Your task to perform on an android device: turn on airplane mode Image 0: 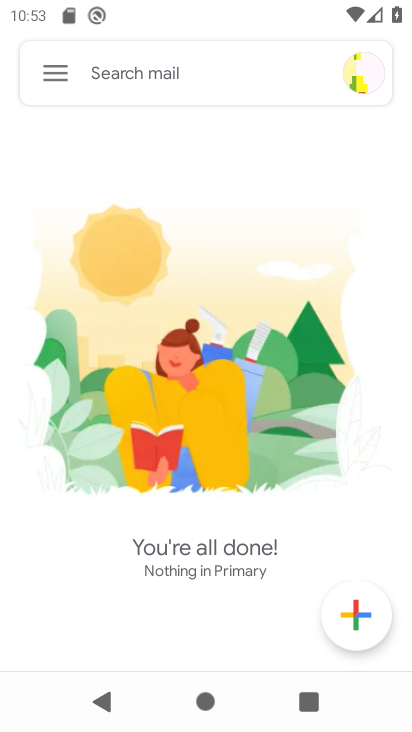
Step 0: press home button
Your task to perform on an android device: turn on airplane mode Image 1: 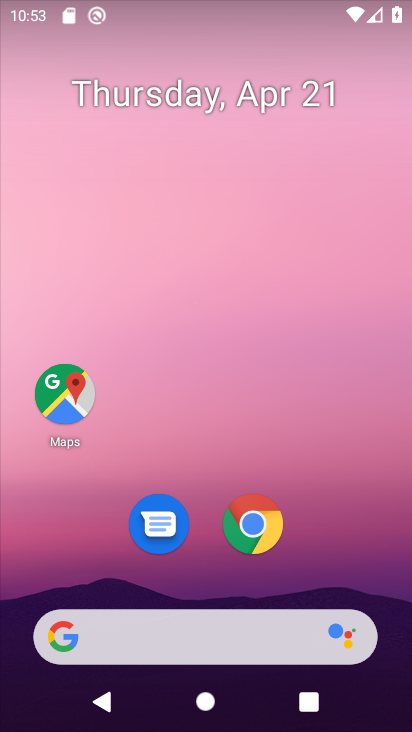
Step 1: drag from (193, 545) to (265, 149)
Your task to perform on an android device: turn on airplane mode Image 2: 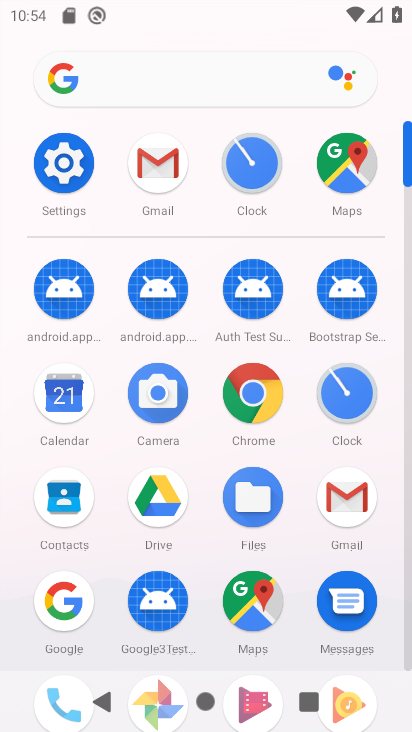
Step 2: click (72, 165)
Your task to perform on an android device: turn on airplane mode Image 3: 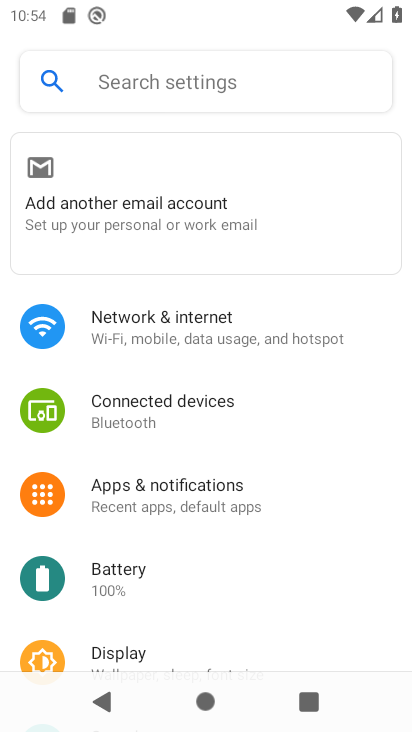
Step 3: click (209, 329)
Your task to perform on an android device: turn on airplane mode Image 4: 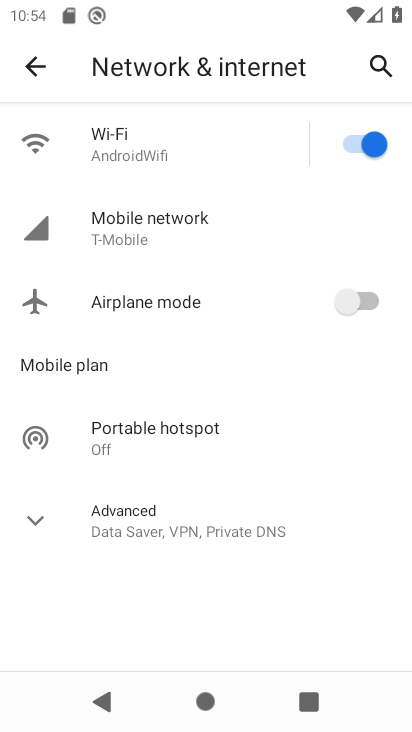
Step 4: click (362, 297)
Your task to perform on an android device: turn on airplane mode Image 5: 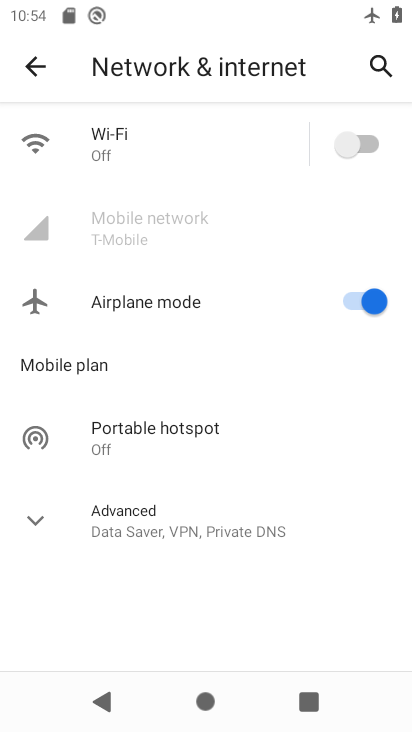
Step 5: task complete